Your task to perform on an android device: Go to Yahoo.com Image 0: 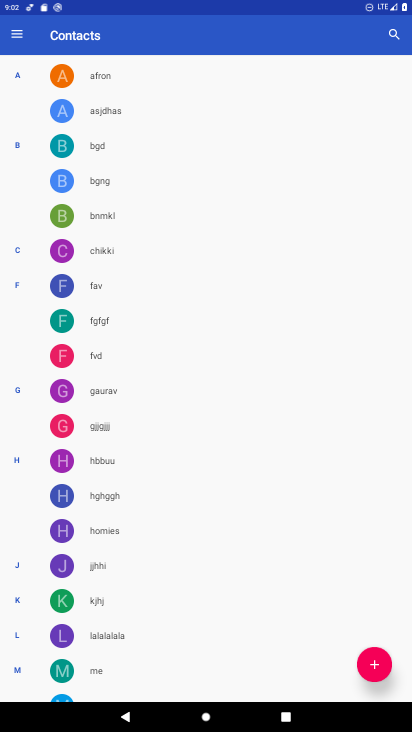
Step 0: press home button
Your task to perform on an android device: Go to Yahoo.com Image 1: 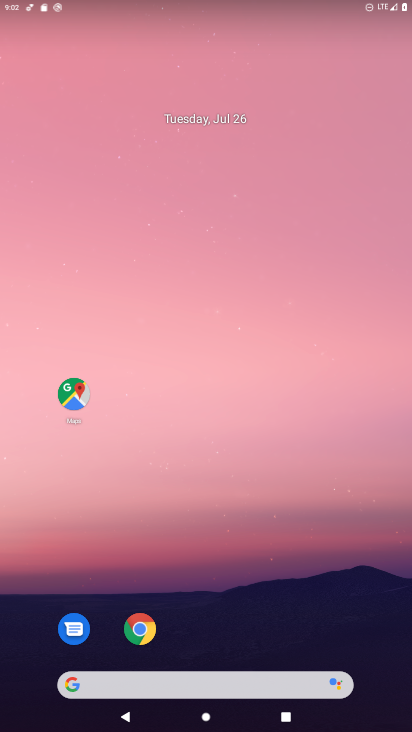
Step 1: click (130, 648)
Your task to perform on an android device: Go to Yahoo.com Image 2: 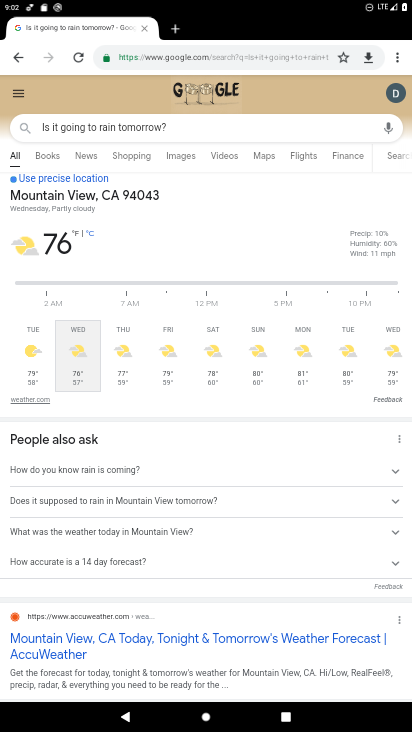
Step 2: click (145, 64)
Your task to perform on an android device: Go to Yahoo.com Image 3: 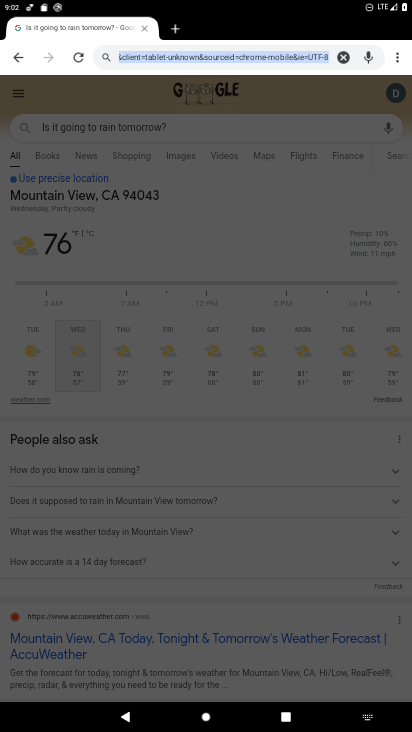
Step 3: type "Yahoo.com"
Your task to perform on an android device: Go to Yahoo.com Image 4: 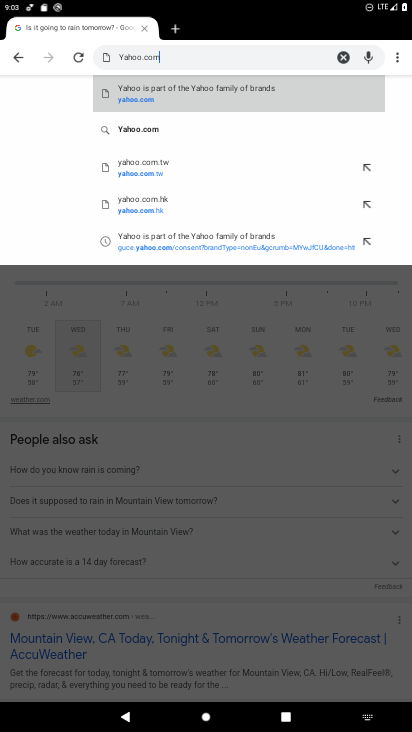
Step 4: click (215, 97)
Your task to perform on an android device: Go to Yahoo.com Image 5: 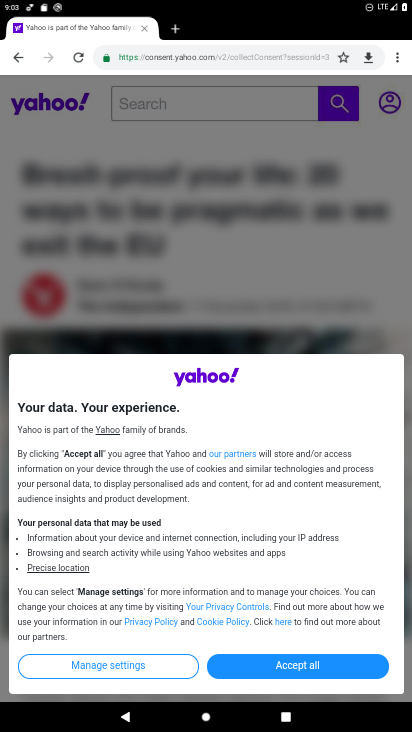
Step 5: task complete